Your task to perform on an android device: empty trash in the gmail app Image 0: 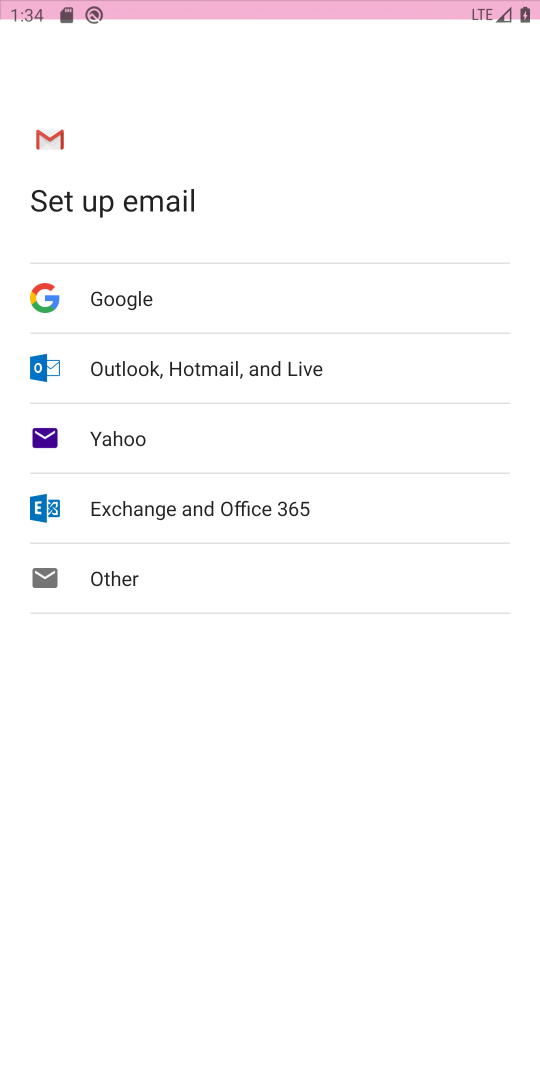
Step 0: press home button
Your task to perform on an android device: empty trash in the gmail app Image 1: 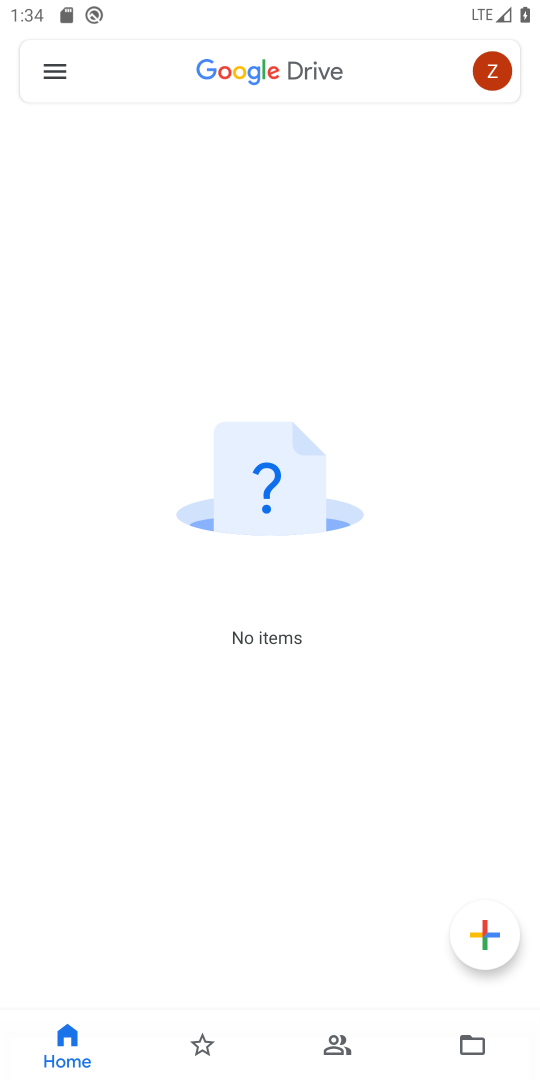
Step 1: press home button
Your task to perform on an android device: empty trash in the gmail app Image 2: 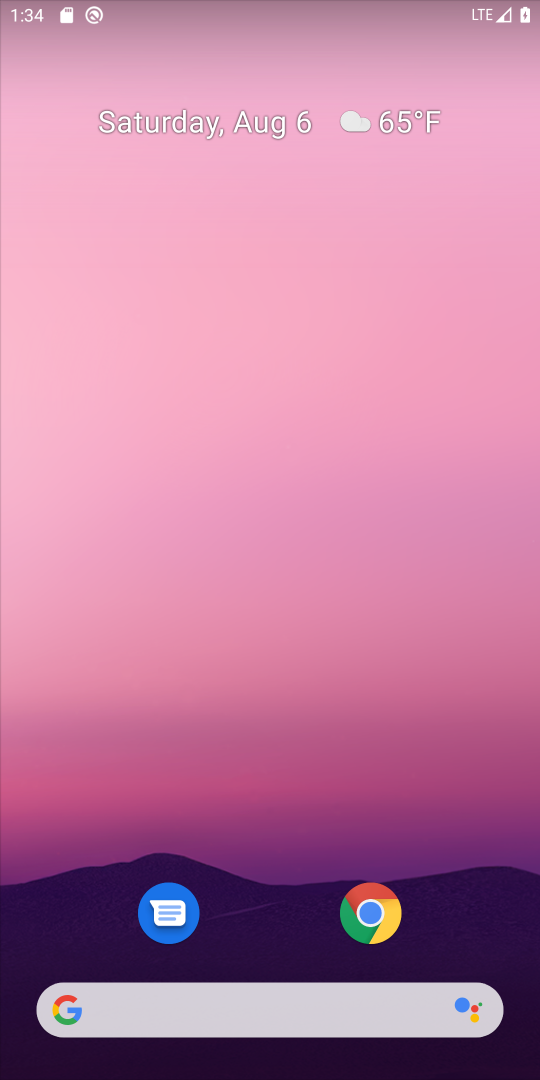
Step 2: drag from (465, 935) to (490, 259)
Your task to perform on an android device: empty trash in the gmail app Image 3: 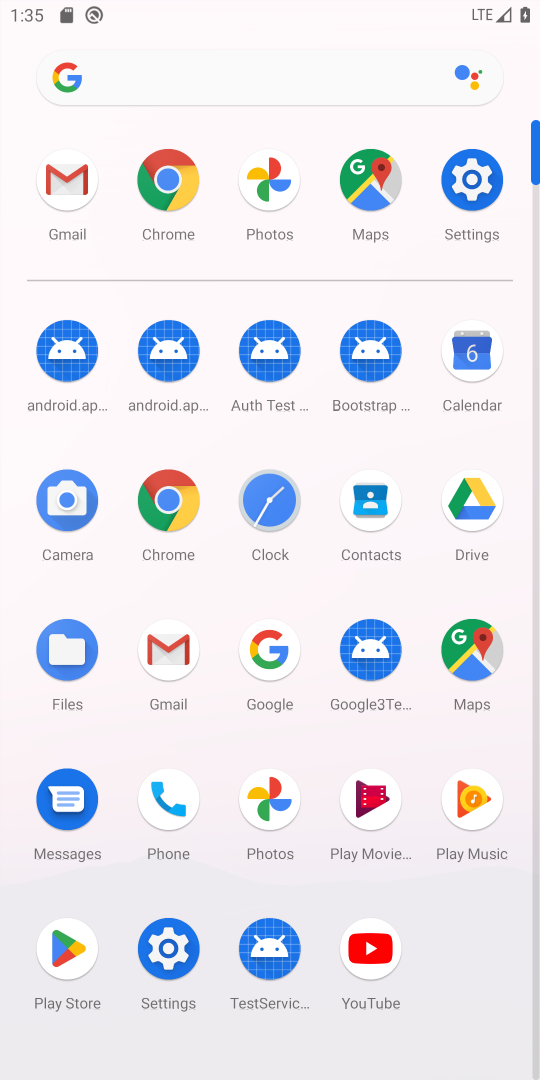
Step 3: click (157, 643)
Your task to perform on an android device: empty trash in the gmail app Image 4: 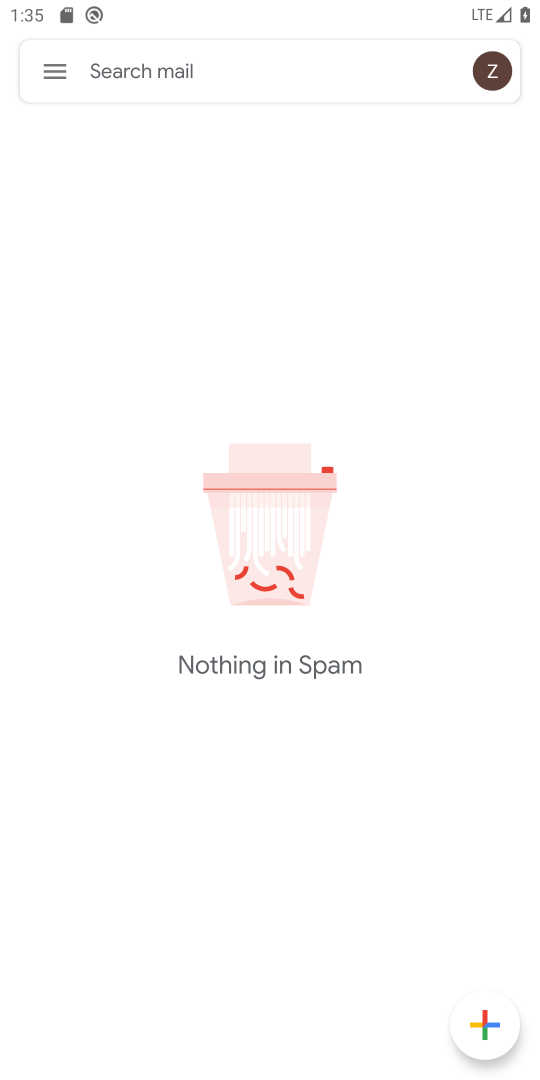
Step 4: click (54, 69)
Your task to perform on an android device: empty trash in the gmail app Image 5: 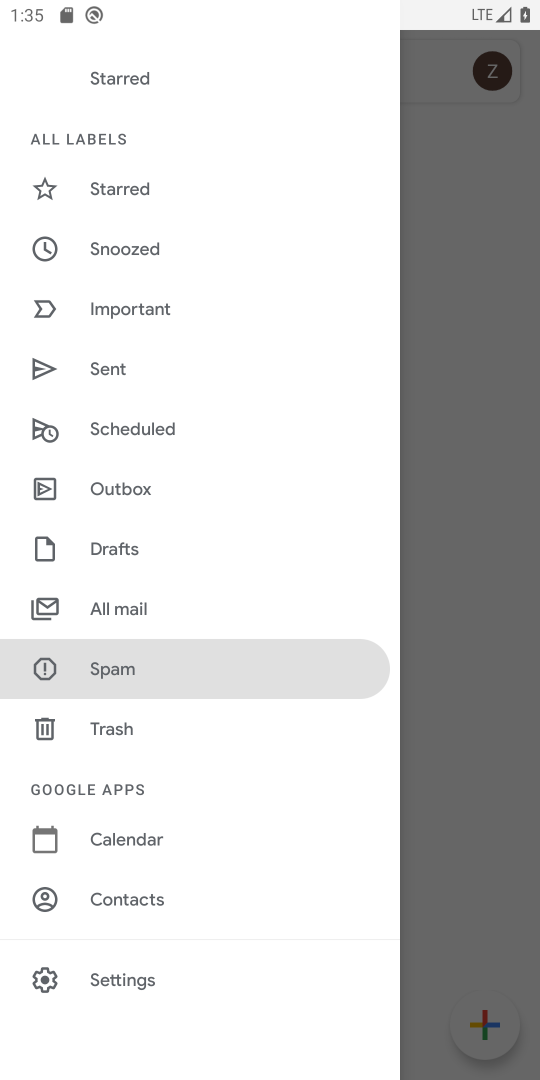
Step 5: click (118, 737)
Your task to perform on an android device: empty trash in the gmail app Image 6: 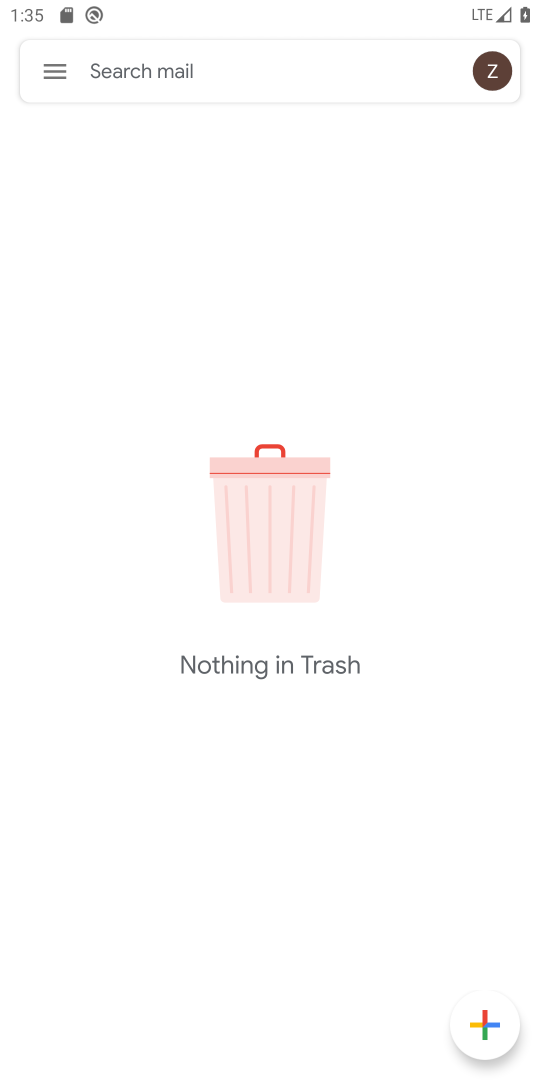
Step 6: task complete